Your task to perform on an android device: Open Yahoo.com Image 0: 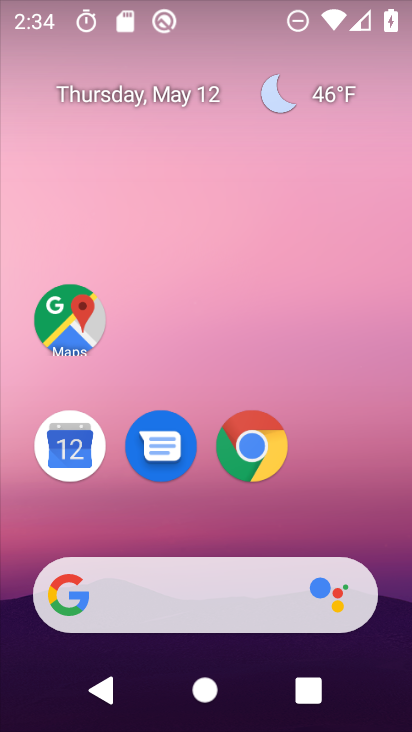
Step 0: click (263, 446)
Your task to perform on an android device: Open Yahoo.com Image 1: 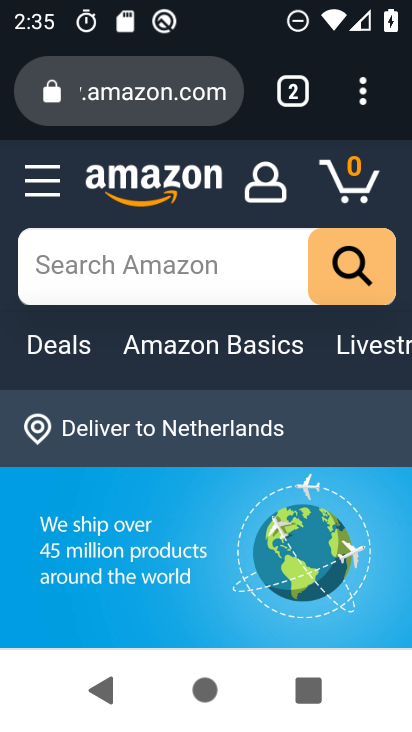
Step 1: click (295, 95)
Your task to perform on an android device: Open Yahoo.com Image 2: 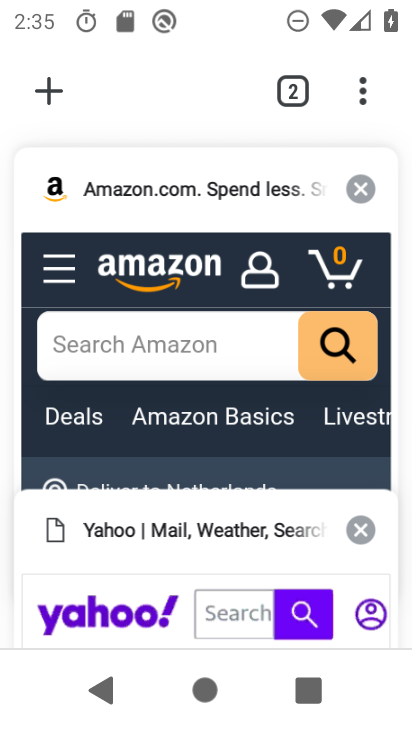
Step 2: click (184, 556)
Your task to perform on an android device: Open Yahoo.com Image 3: 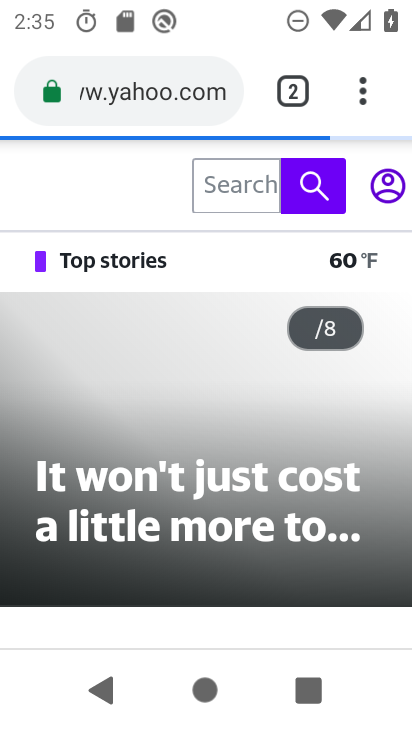
Step 3: task complete